Your task to perform on an android device: check battery use Image 0: 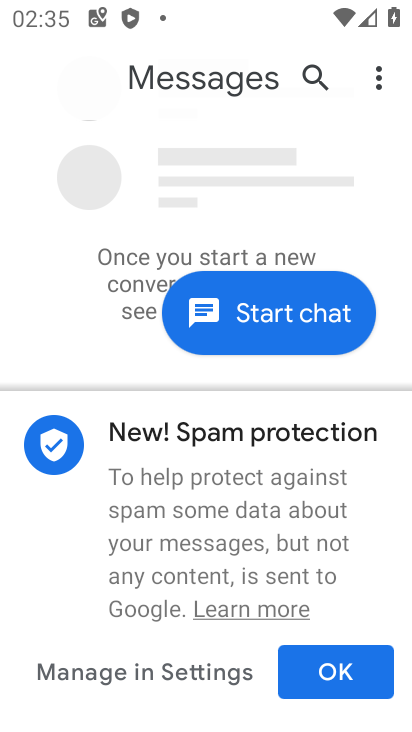
Step 0: press home button
Your task to perform on an android device: check battery use Image 1: 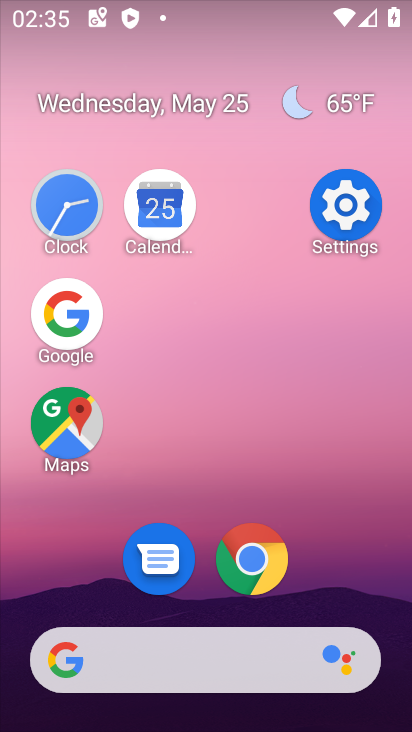
Step 1: click (353, 234)
Your task to perform on an android device: check battery use Image 2: 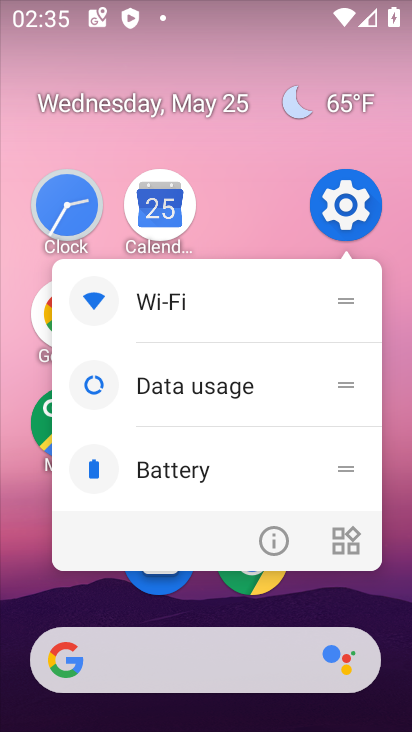
Step 2: click (358, 205)
Your task to perform on an android device: check battery use Image 3: 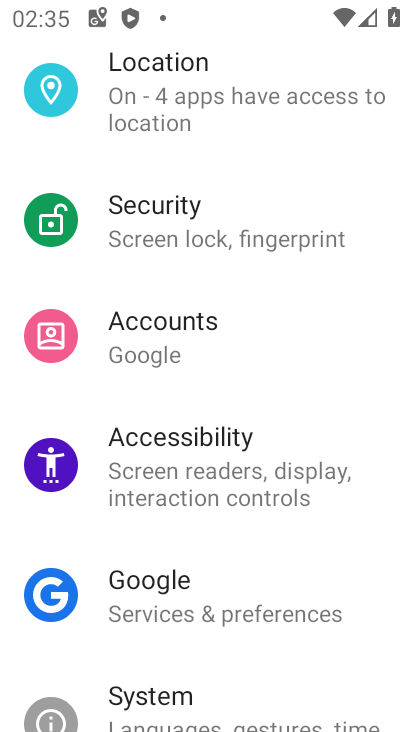
Step 3: drag from (358, 205) to (354, 438)
Your task to perform on an android device: check battery use Image 4: 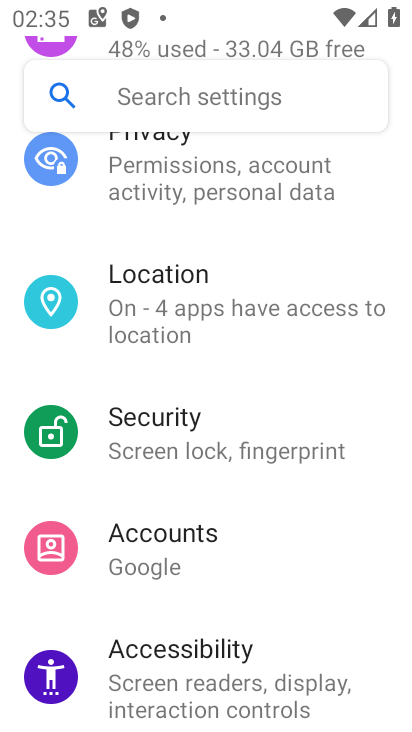
Step 4: drag from (287, 239) to (295, 535)
Your task to perform on an android device: check battery use Image 5: 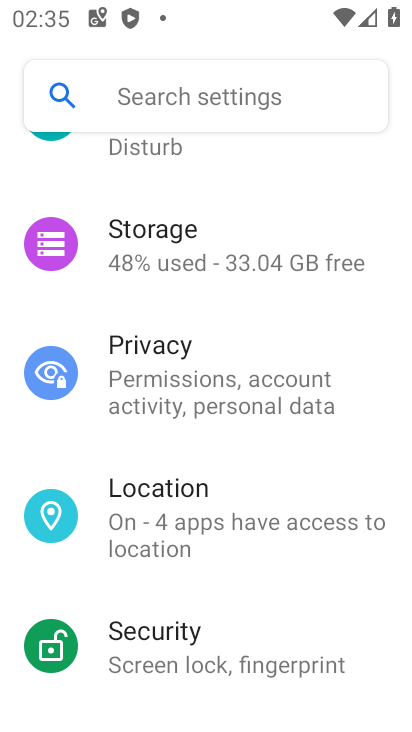
Step 5: drag from (317, 179) to (290, 563)
Your task to perform on an android device: check battery use Image 6: 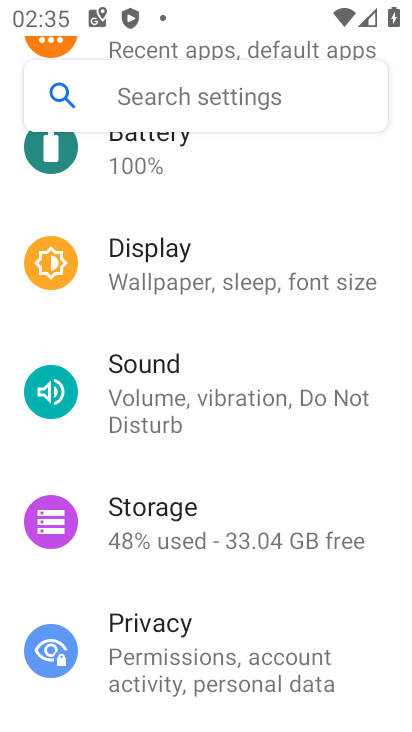
Step 6: click (241, 163)
Your task to perform on an android device: check battery use Image 7: 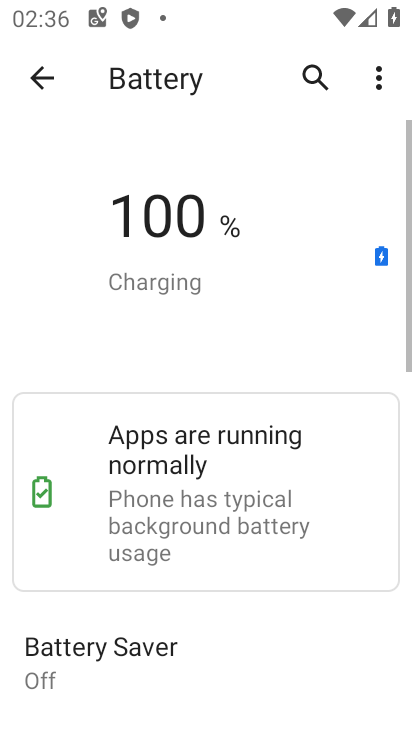
Step 7: click (381, 89)
Your task to perform on an android device: check battery use Image 8: 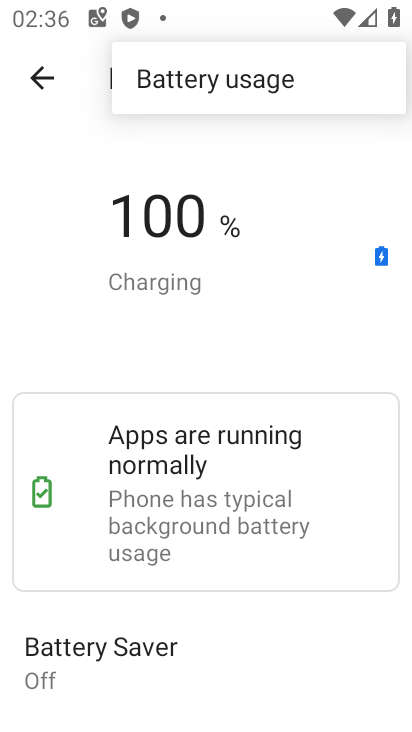
Step 8: click (290, 106)
Your task to perform on an android device: check battery use Image 9: 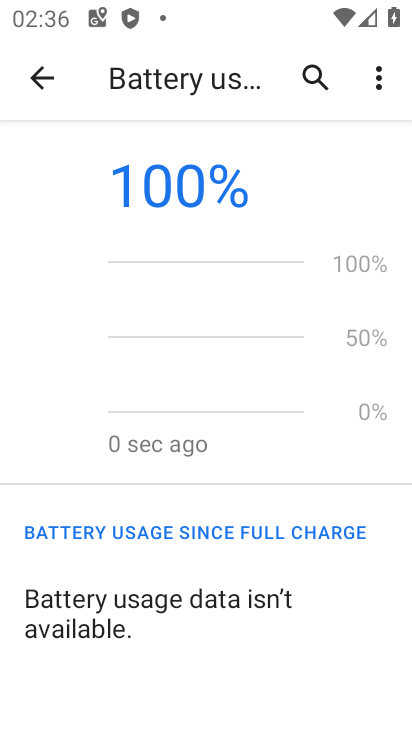
Step 9: task complete